Your task to perform on an android device: What's the weather today? Image 0: 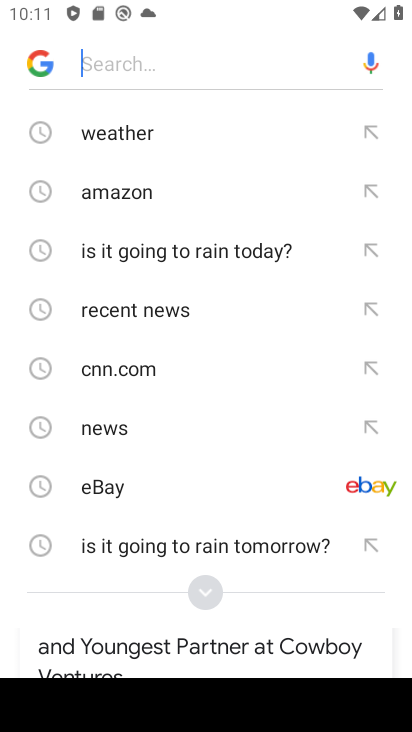
Step 0: press back button
Your task to perform on an android device: What's the weather today? Image 1: 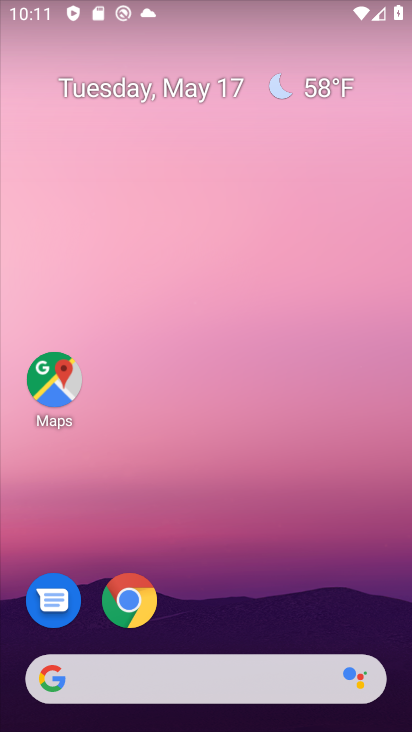
Step 1: click (290, 673)
Your task to perform on an android device: What's the weather today? Image 2: 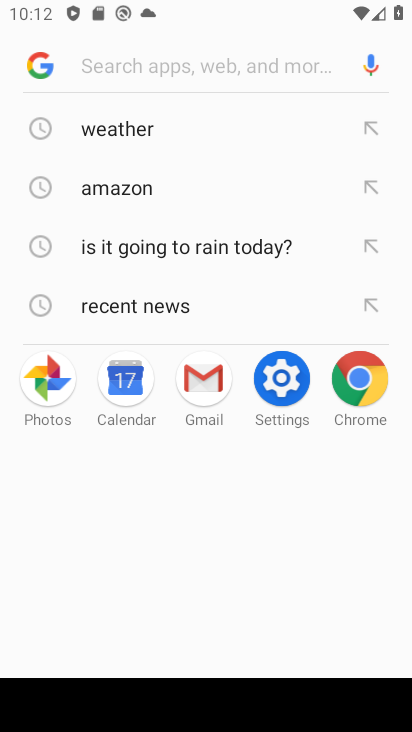
Step 2: click (171, 134)
Your task to perform on an android device: What's the weather today? Image 3: 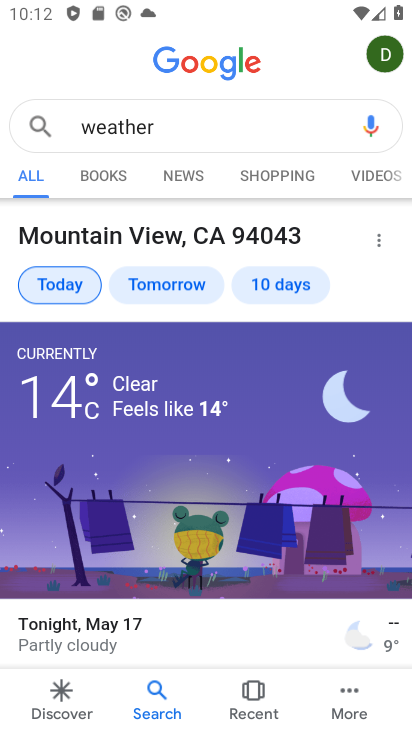
Step 3: task complete